Your task to perform on an android device: open chrome and create a bookmark for the current page Image 0: 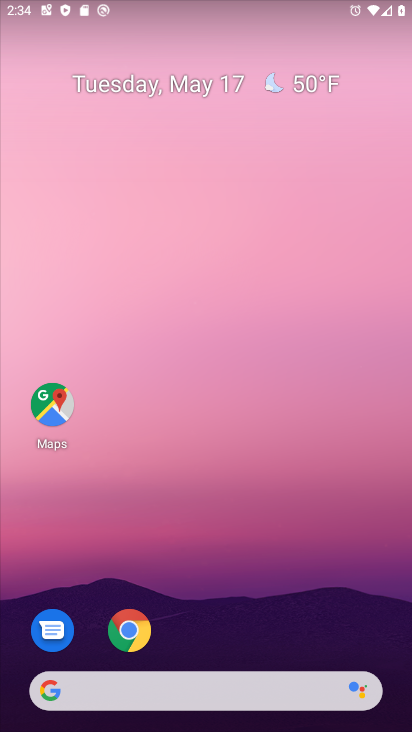
Step 0: drag from (238, 675) to (267, 175)
Your task to perform on an android device: open chrome and create a bookmark for the current page Image 1: 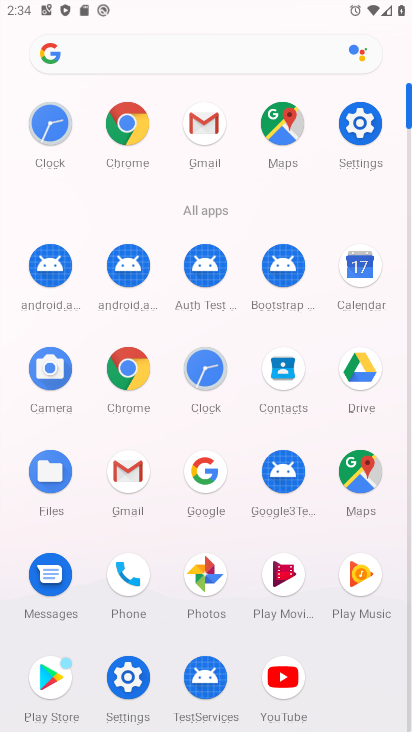
Step 1: click (125, 126)
Your task to perform on an android device: open chrome and create a bookmark for the current page Image 2: 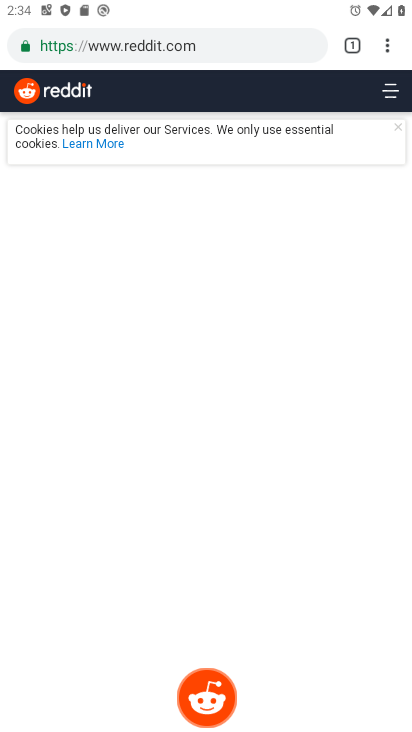
Step 2: click (386, 37)
Your task to perform on an android device: open chrome and create a bookmark for the current page Image 3: 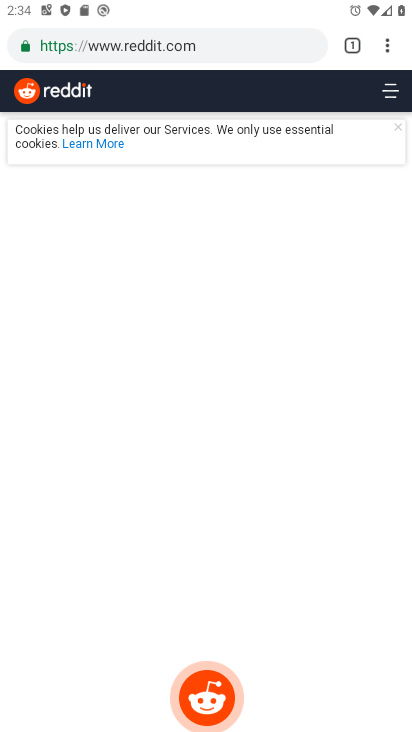
Step 3: click (385, 41)
Your task to perform on an android device: open chrome and create a bookmark for the current page Image 4: 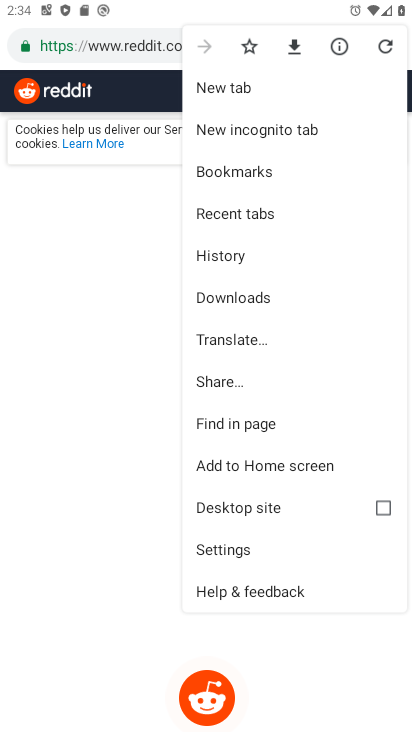
Step 4: click (245, 47)
Your task to perform on an android device: open chrome and create a bookmark for the current page Image 5: 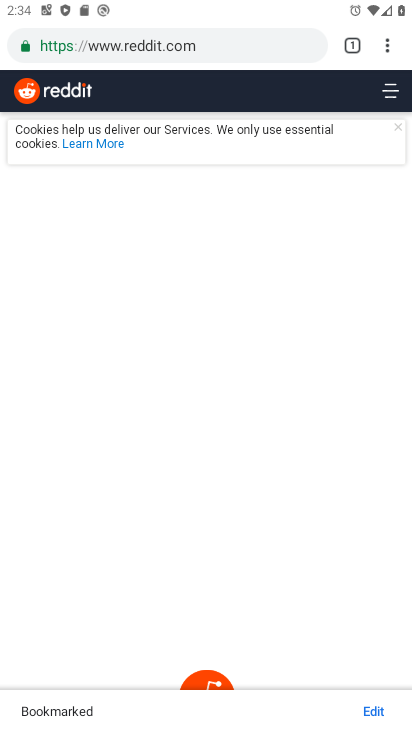
Step 5: task complete